Your task to perform on an android device: Do I have any events tomorrow? Image 0: 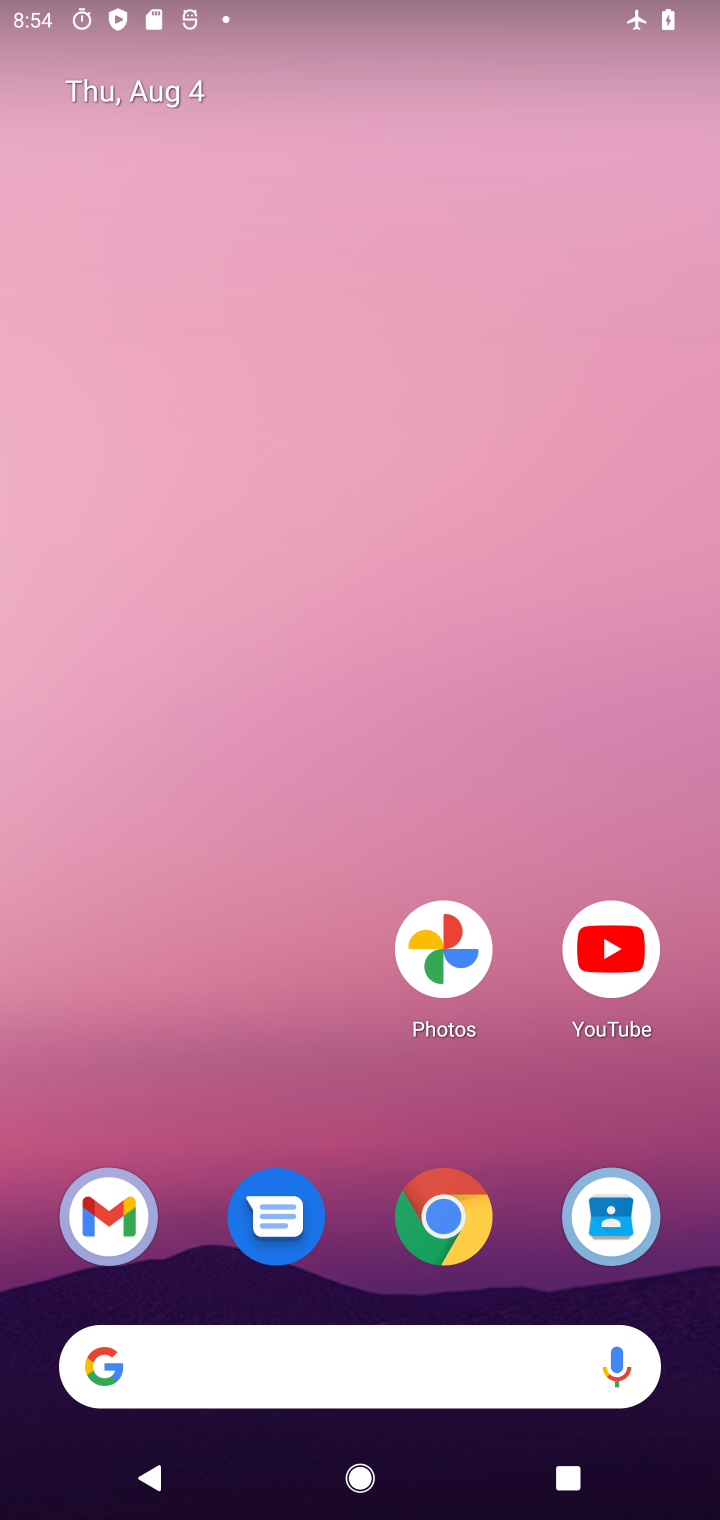
Step 0: drag from (357, 1144) to (335, 288)
Your task to perform on an android device: Do I have any events tomorrow? Image 1: 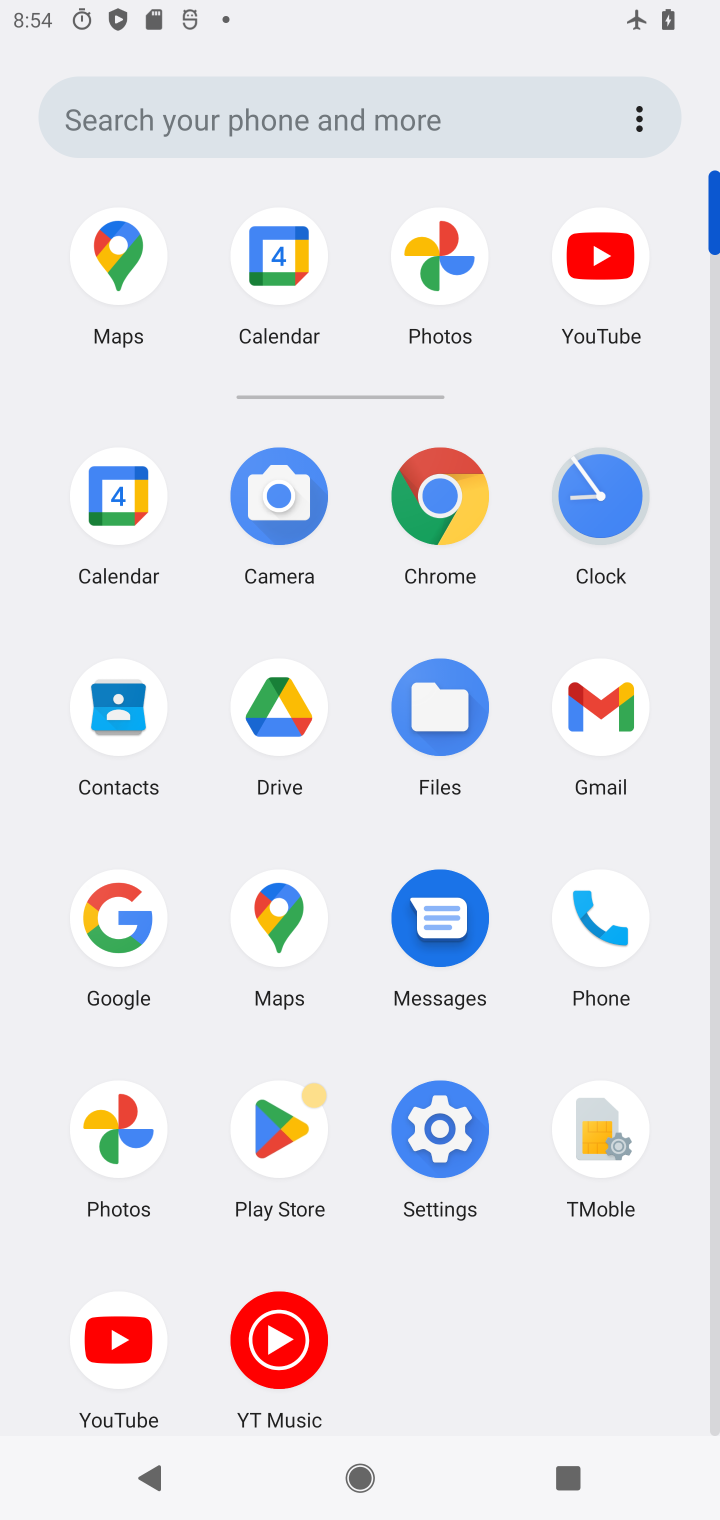
Step 1: click (120, 709)
Your task to perform on an android device: Do I have any events tomorrow? Image 2: 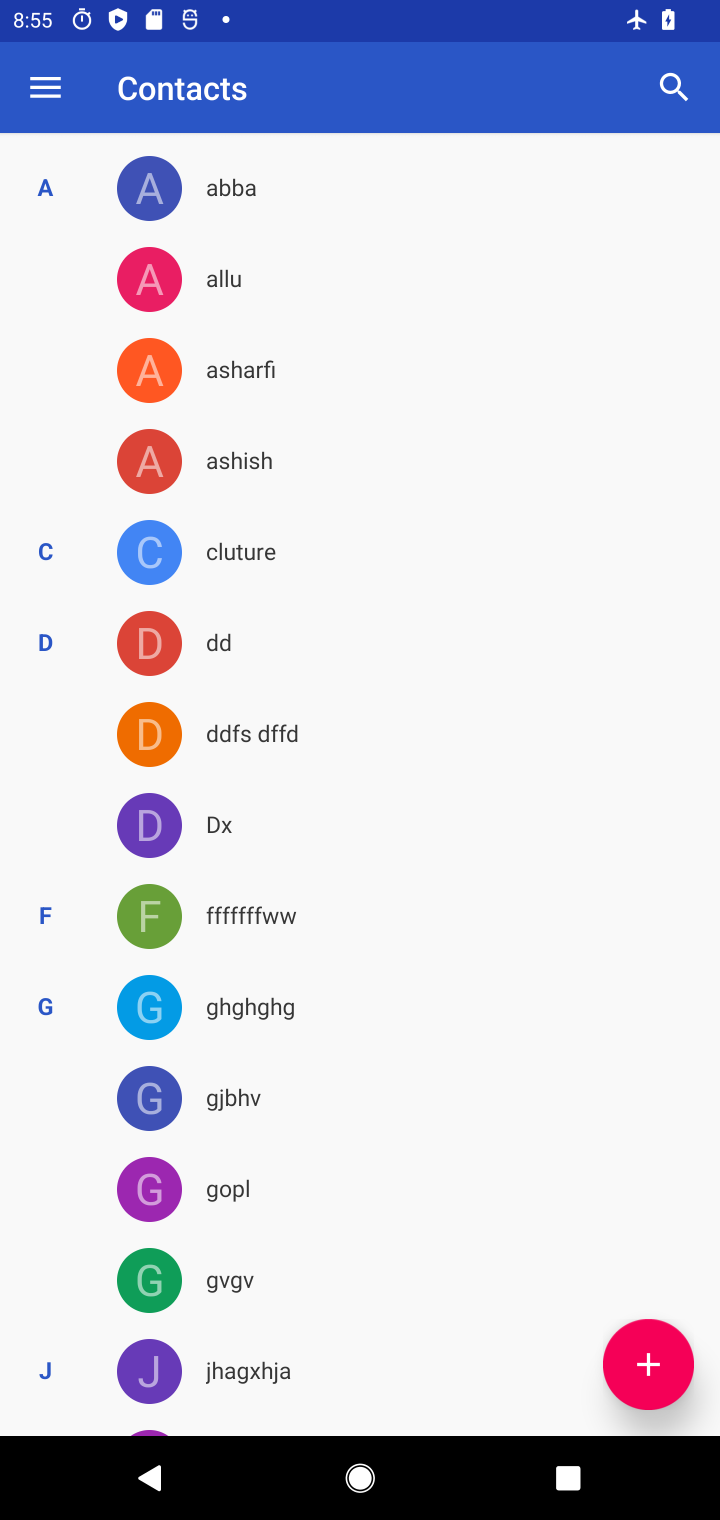
Step 2: press home button
Your task to perform on an android device: Do I have any events tomorrow? Image 3: 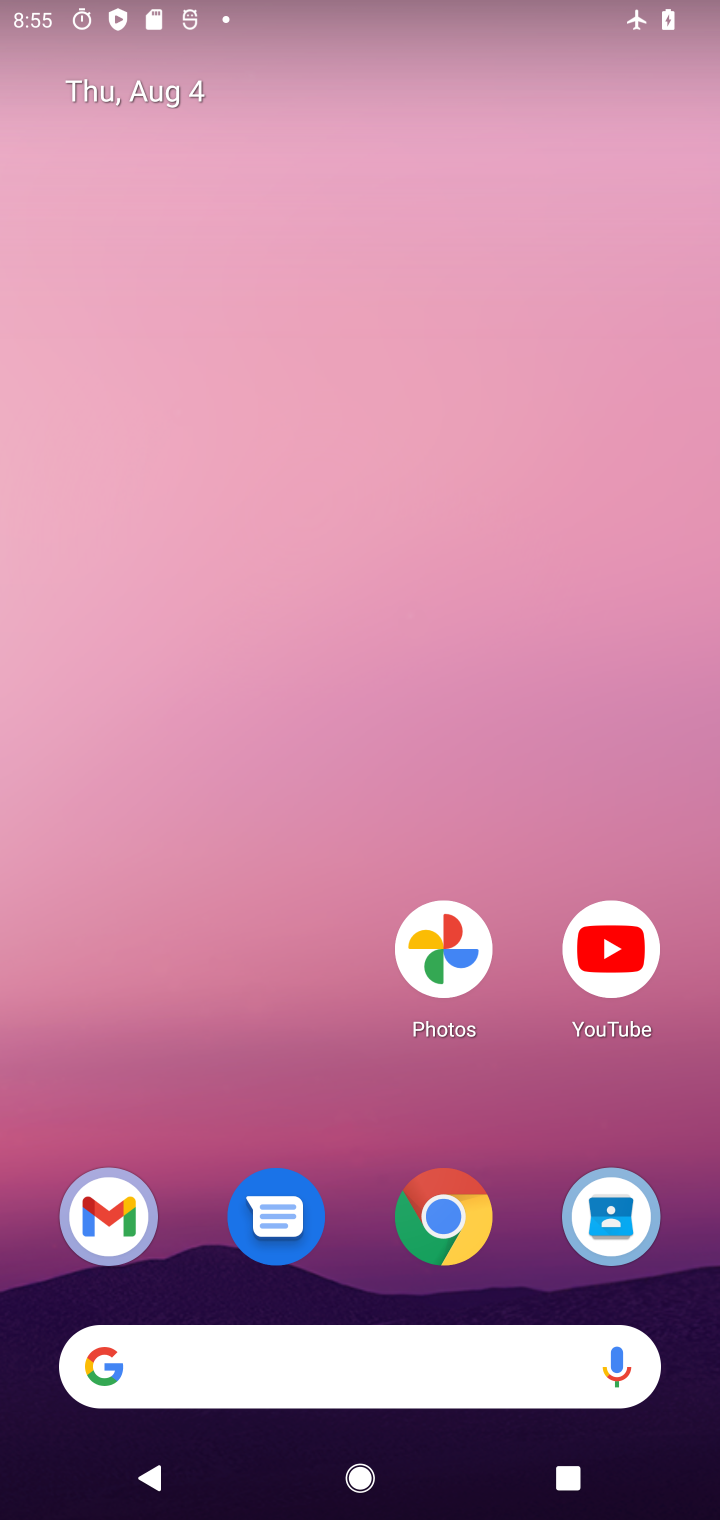
Step 3: drag from (332, 1096) to (321, 293)
Your task to perform on an android device: Do I have any events tomorrow? Image 4: 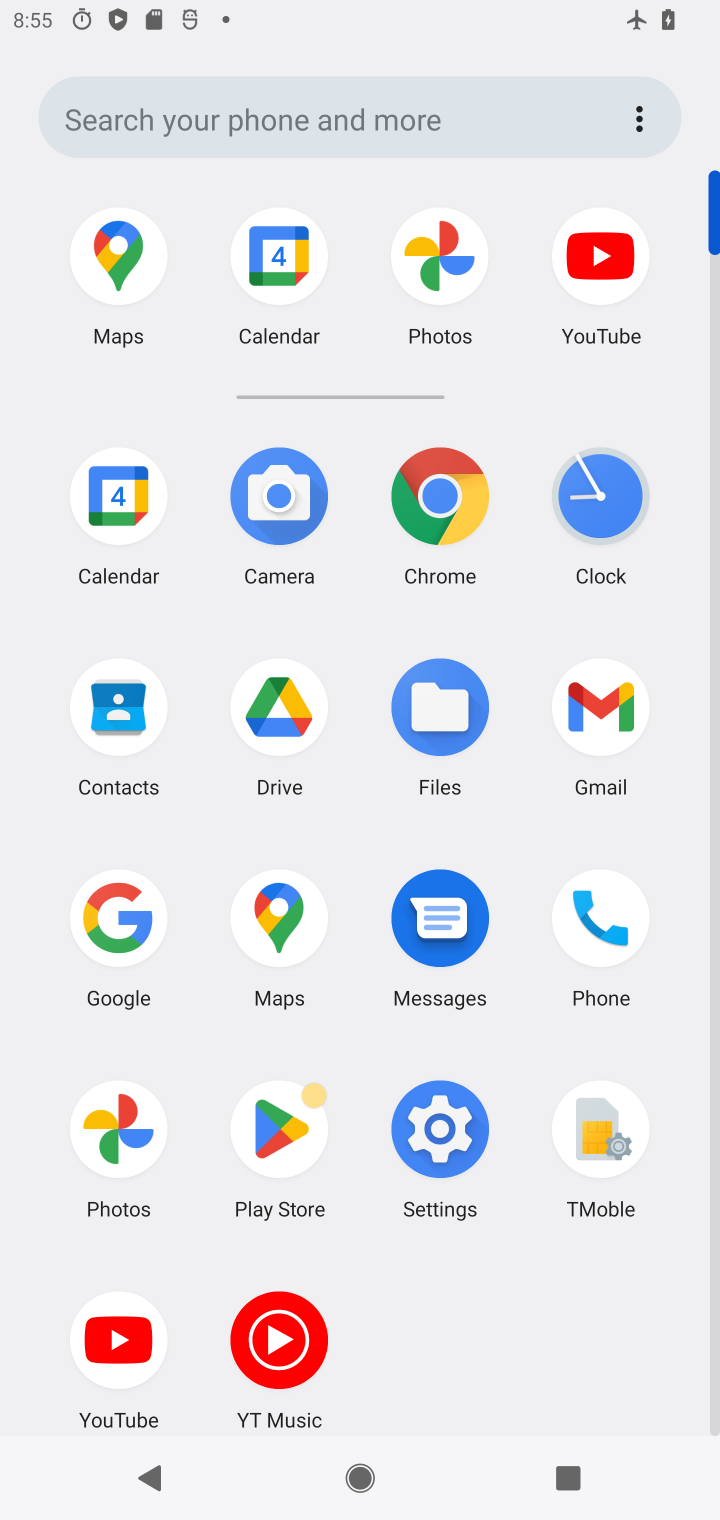
Step 4: click (105, 525)
Your task to perform on an android device: Do I have any events tomorrow? Image 5: 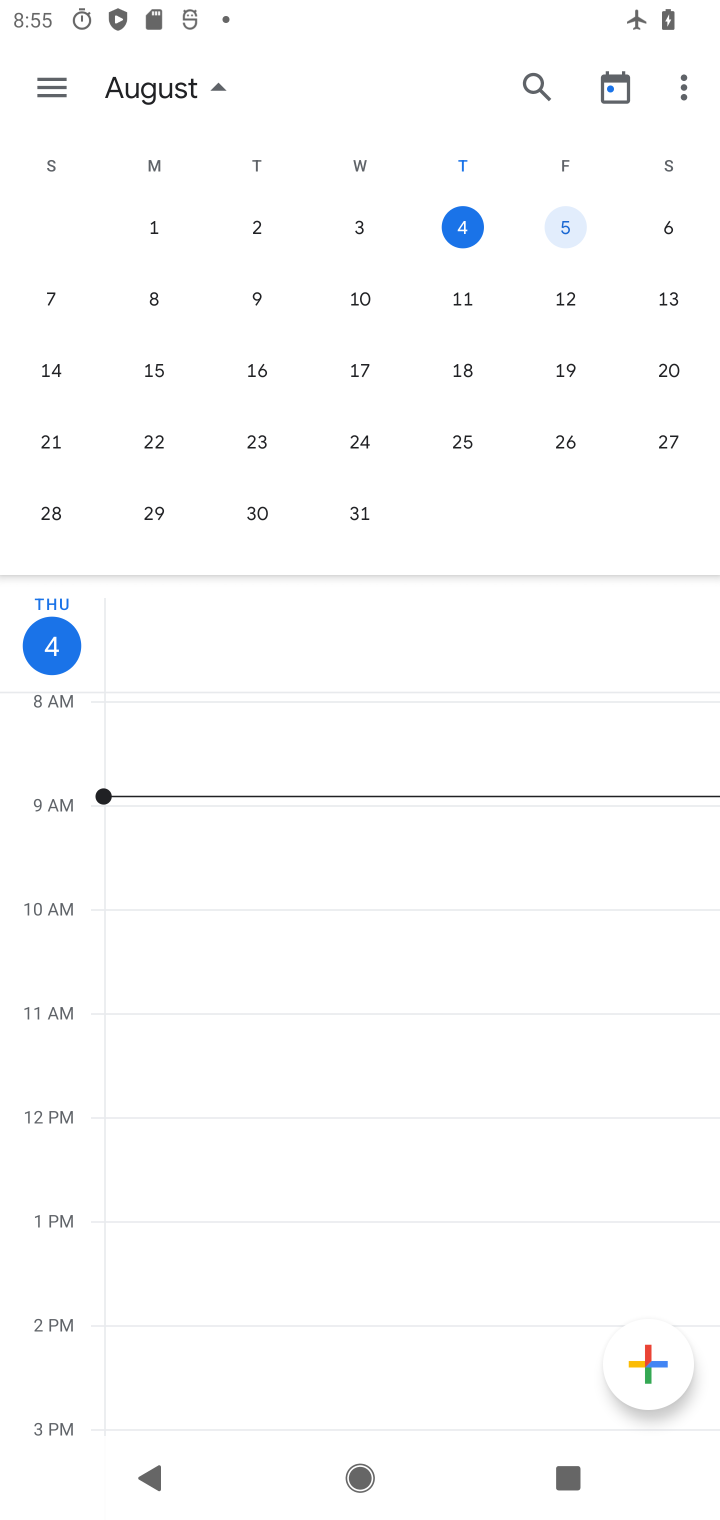
Step 5: click (50, 82)
Your task to perform on an android device: Do I have any events tomorrow? Image 6: 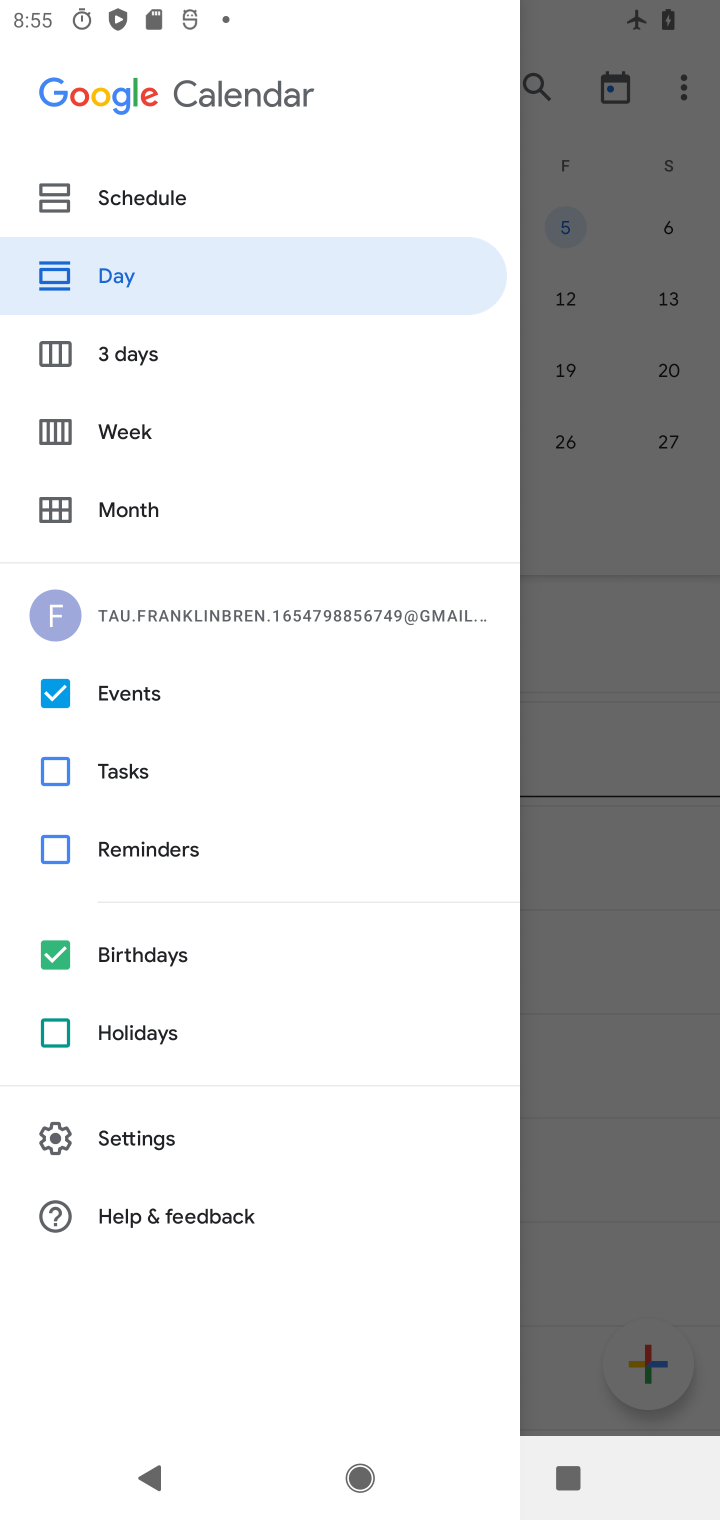
Step 6: click (585, 282)
Your task to perform on an android device: Do I have any events tomorrow? Image 7: 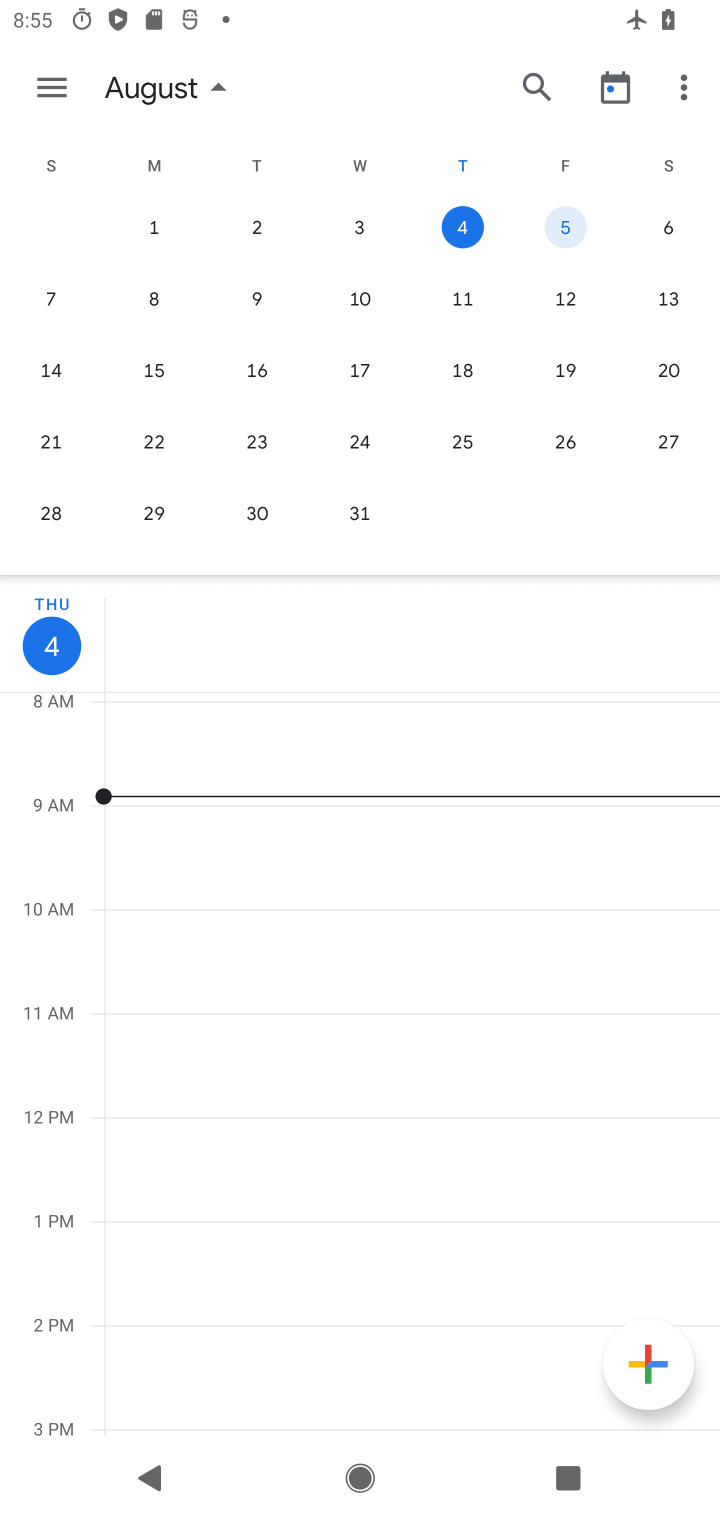
Step 7: click (563, 221)
Your task to perform on an android device: Do I have any events tomorrow? Image 8: 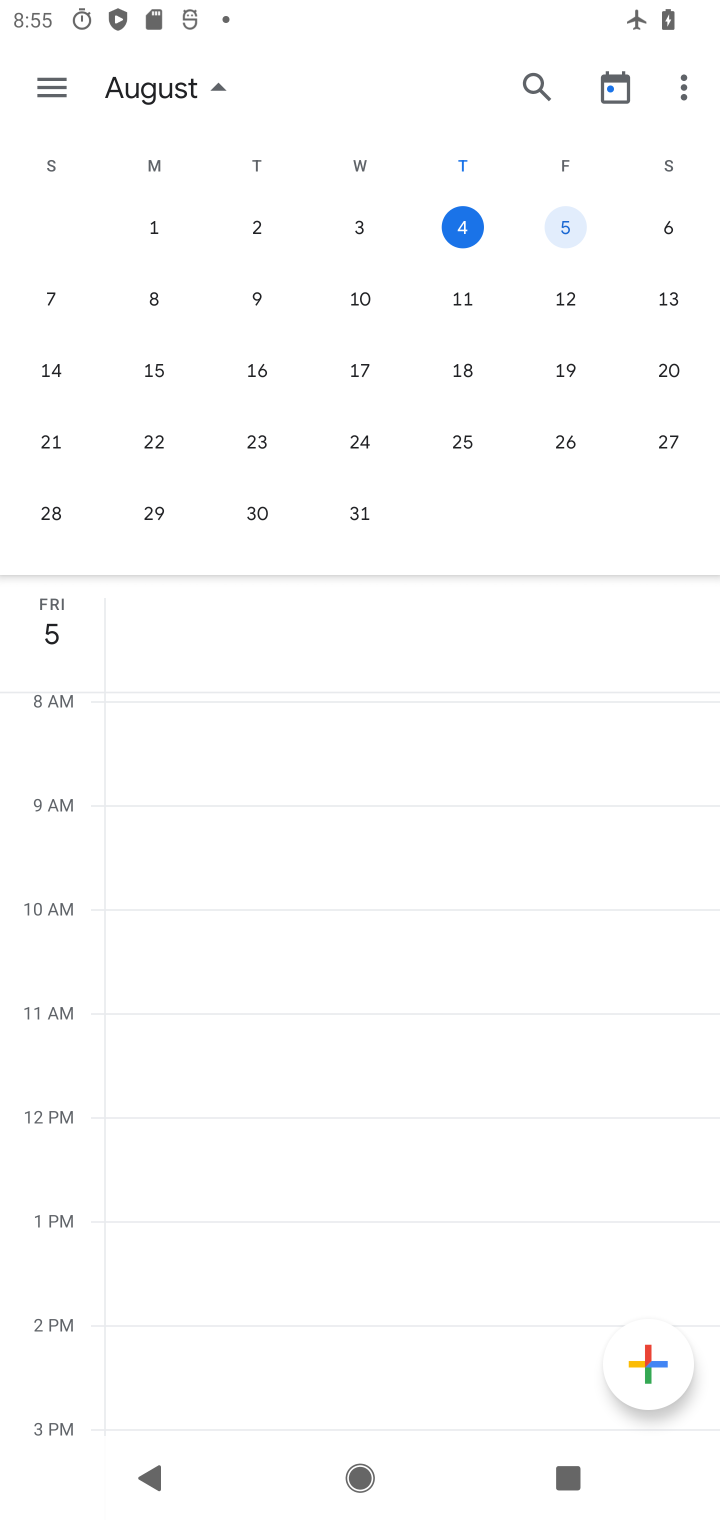
Step 8: task complete